Your task to perform on an android device: check data usage Image 0: 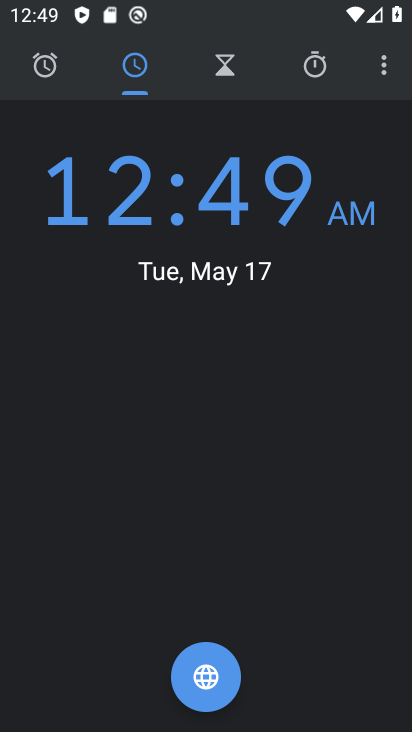
Step 0: press home button
Your task to perform on an android device: check data usage Image 1: 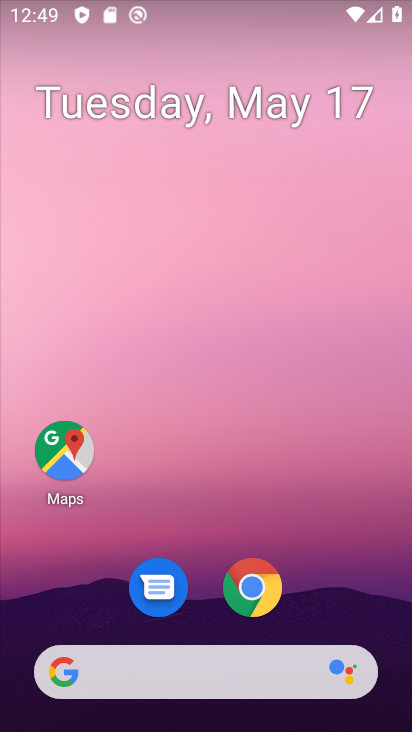
Step 1: drag from (336, 577) to (185, 197)
Your task to perform on an android device: check data usage Image 2: 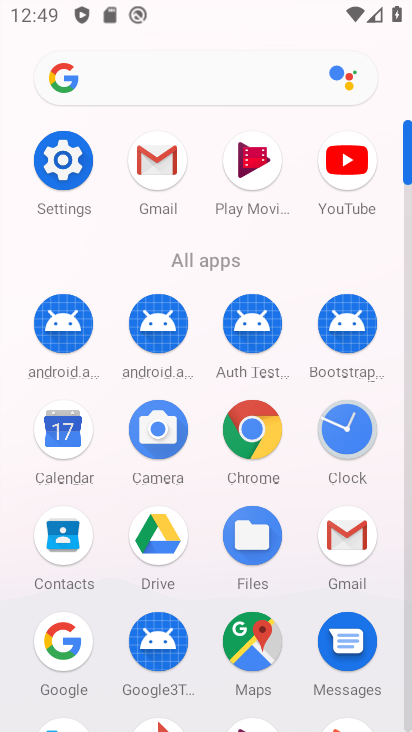
Step 2: click (68, 166)
Your task to perform on an android device: check data usage Image 3: 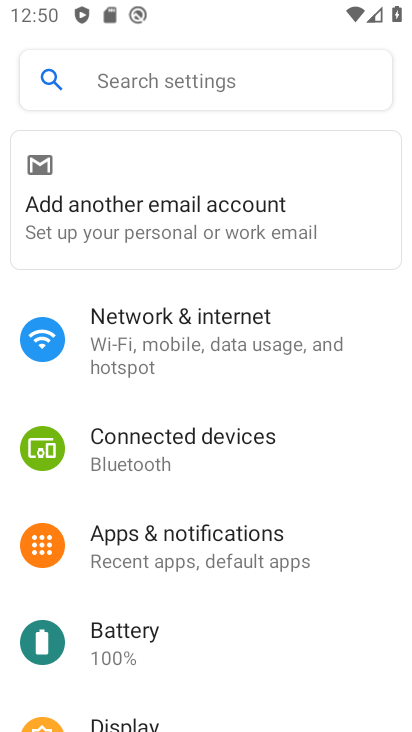
Step 3: click (148, 364)
Your task to perform on an android device: check data usage Image 4: 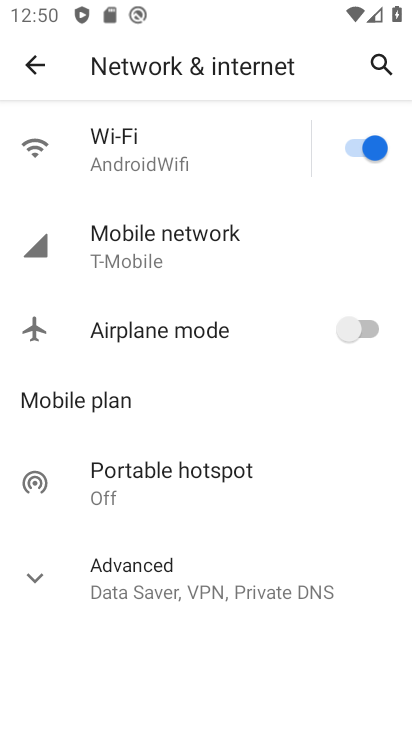
Step 4: click (187, 261)
Your task to perform on an android device: check data usage Image 5: 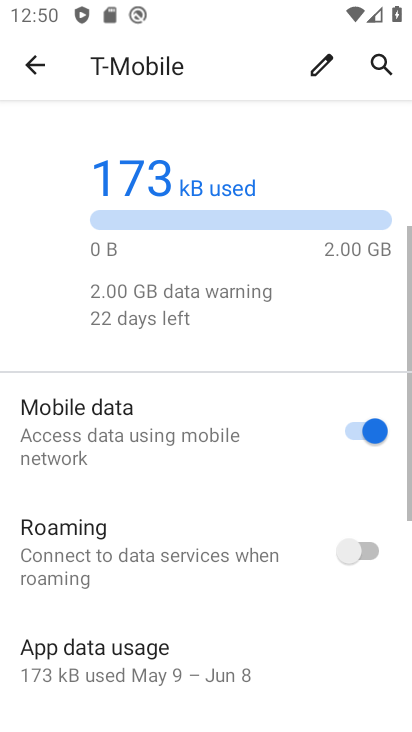
Step 5: task complete